Your task to perform on an android device: Open calendar and show me the third week of next month Image 0: 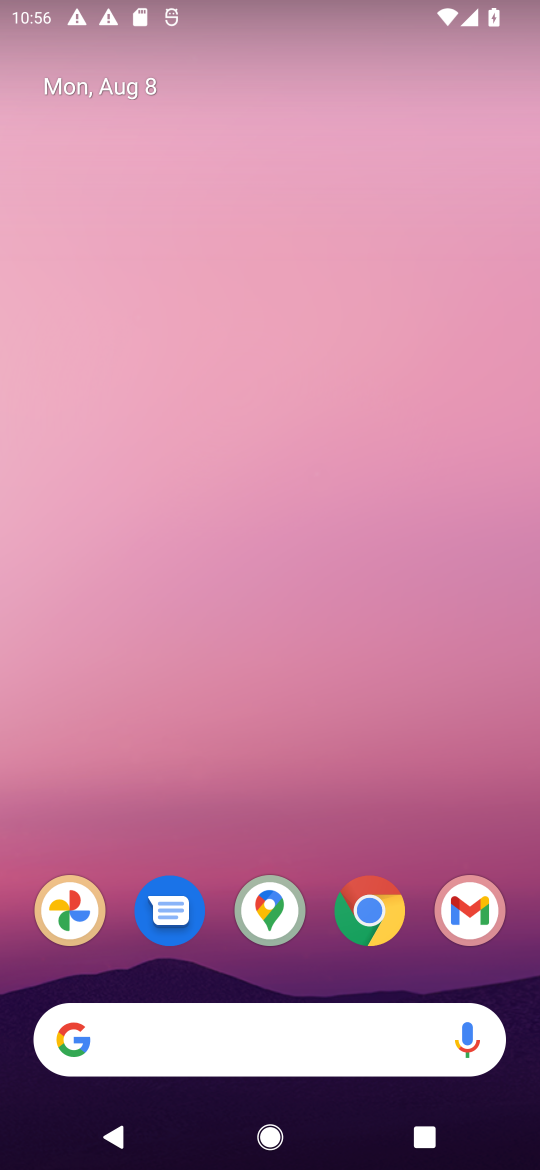
Step 0: drag from (263, 984) to (270, 31)
Your task to perform on an android device: Open calendar and show me the third week of next month Image 1: 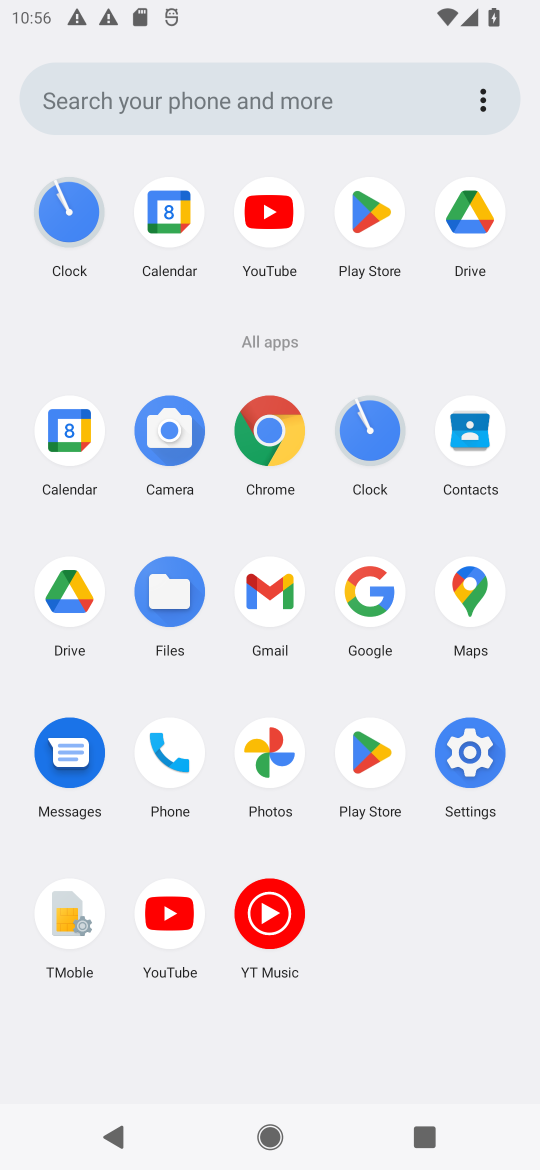
Step 1: click (64, 439)
Your task to perform on an android device: Open calendar and show me the third week of next month Image 2: 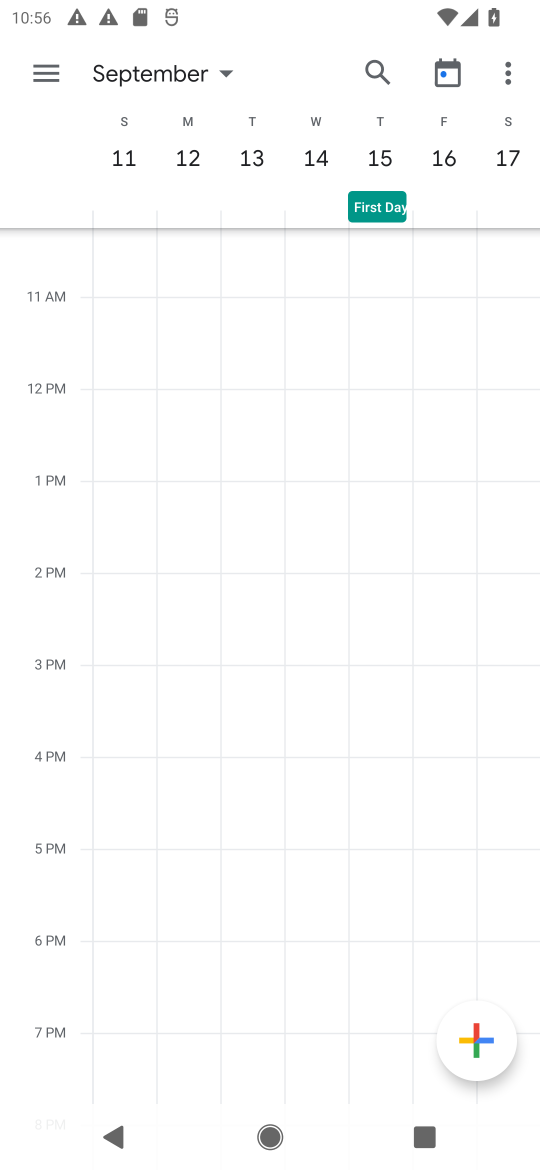
Step 2: task complete